Your task to perform on an android device: Go to notification settings Image 0: 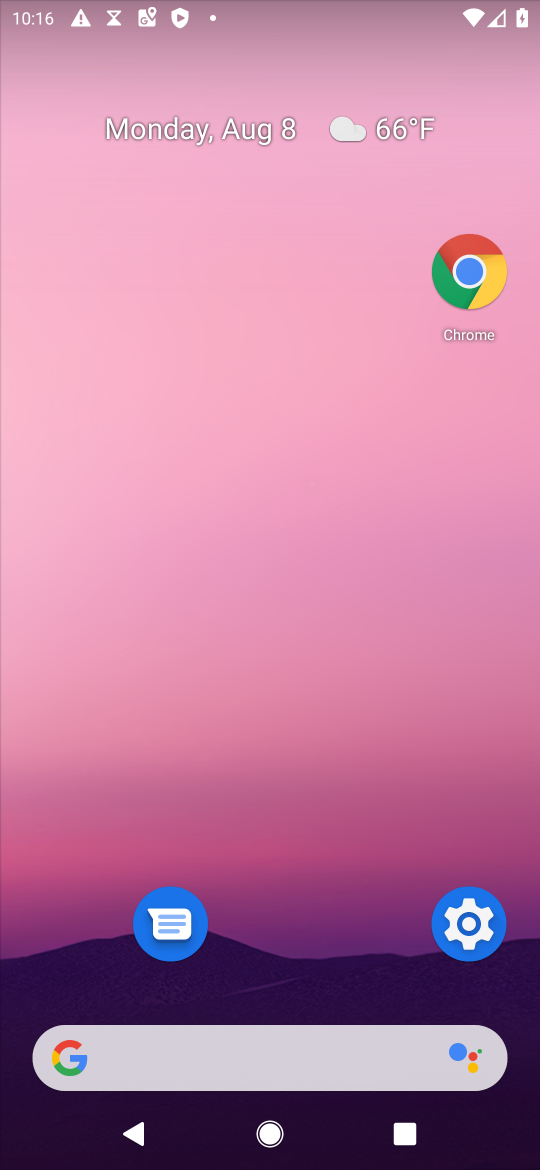
Step 0: click (463, 914)
Your task to perform on an android device: Go to notification settings Image 1: 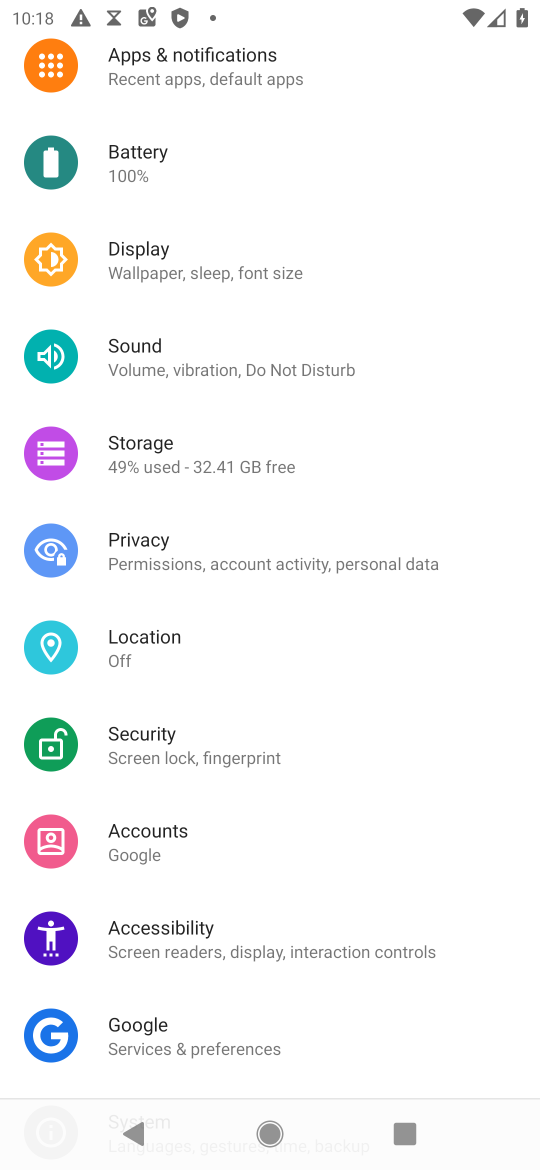
Step 1: click (114, 91)
Your task to perform on an android device: Go to notification settings Image 2: 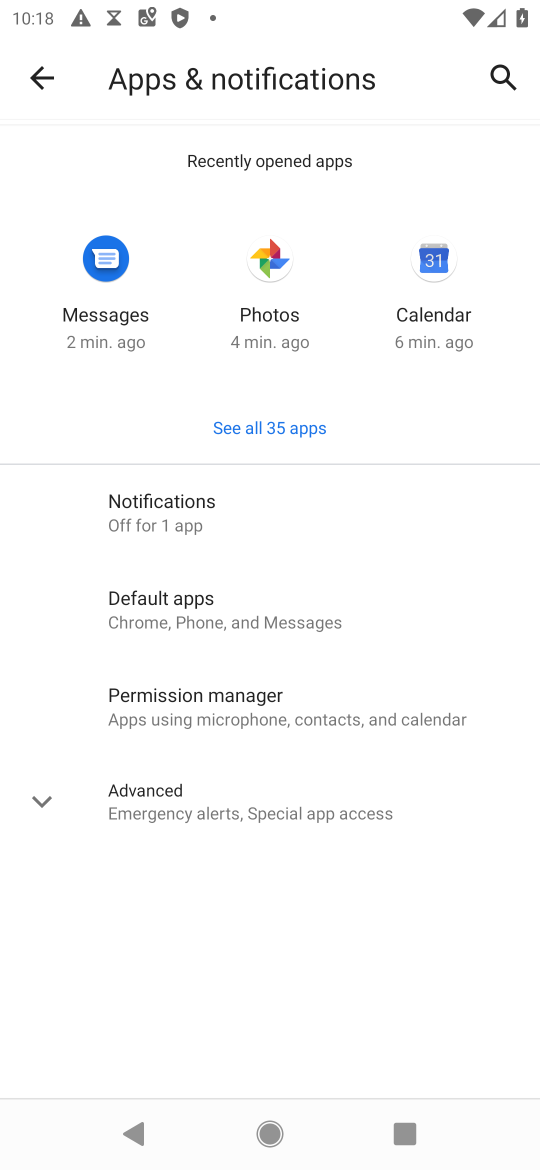
Step 2: click (204, 505)
Your task to perform on an android device: Go to notification settings Image 3: 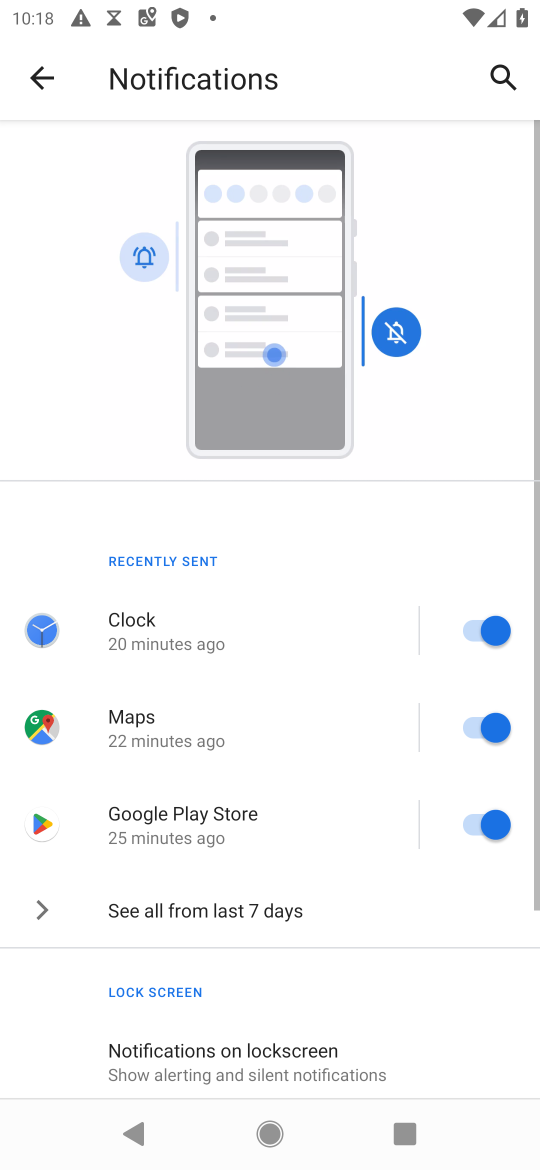
Step 3: task complete